Your task to perform on an android device: turn off javascript in the chrome app Image 0: 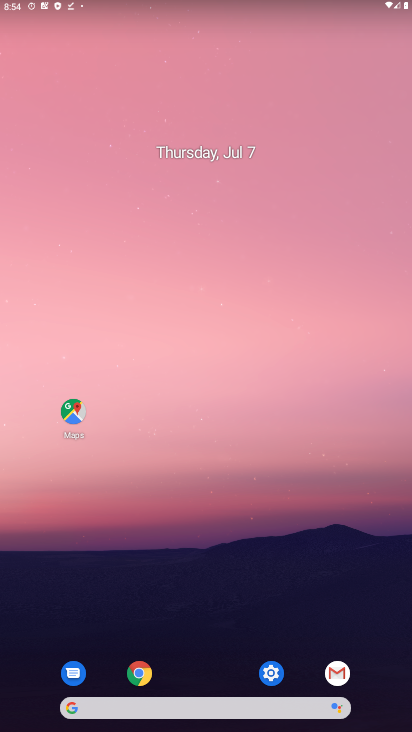
Step 0: click (147, 663)
Your task to perform on an android device: turn off javascript in the chrome app Image 1: 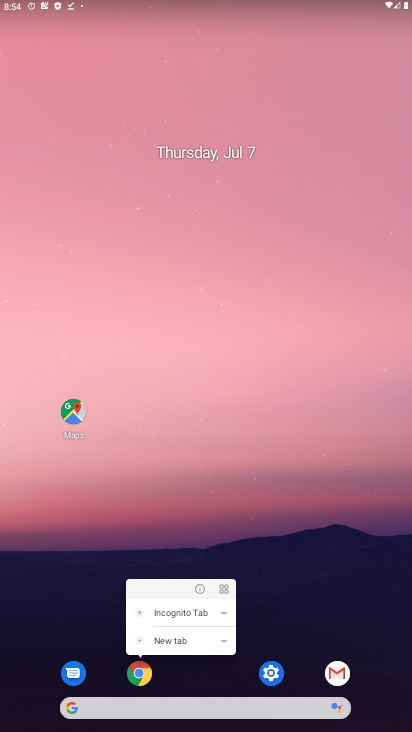
Step 1: click (141, 678)
Your task to perform on an android device: turn off javascript in the chrome app Image 2: 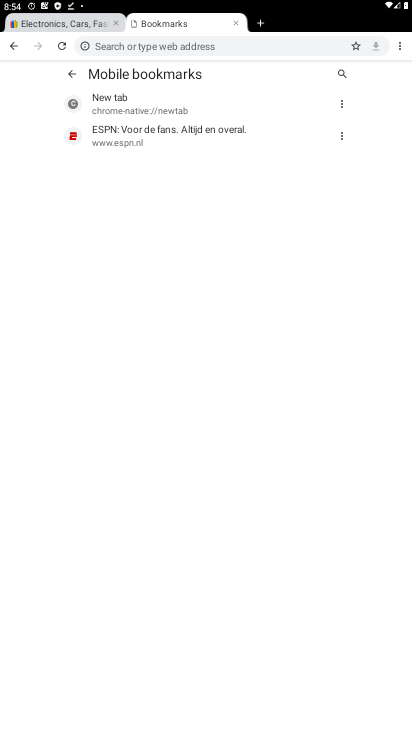
Step 2: click (405, 46)
Your task to perform on an android device: turn off javascript in the chrome app Image 3: 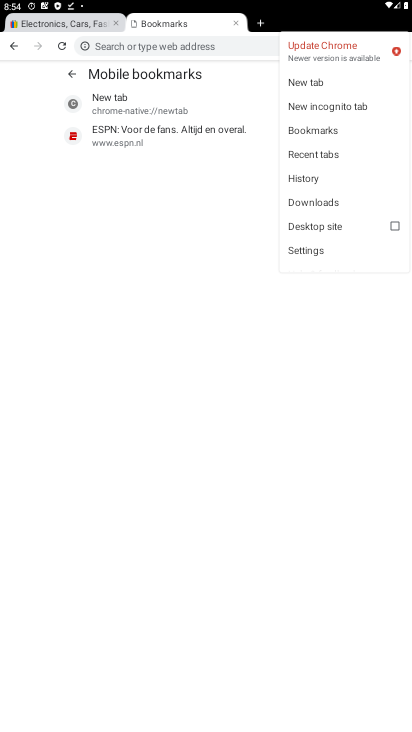
Step 3: click (304, 253)
Your task to perform on an android device: turn off javascript in the chrome app Image 4: 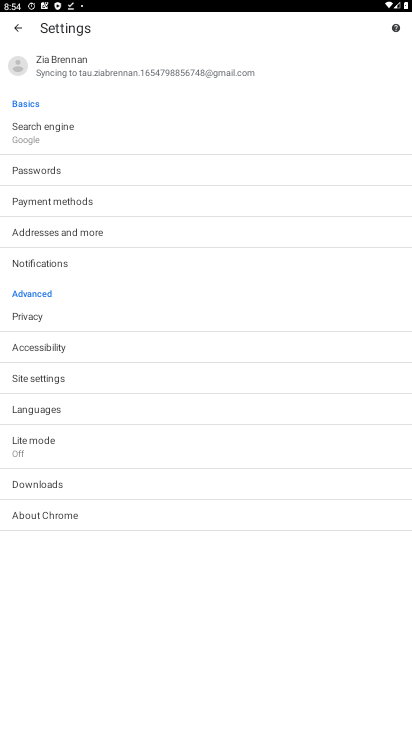
Step 4: click (58, 382)
Your task to perform on an android device: turn off javascript in the chrome app Image 5: 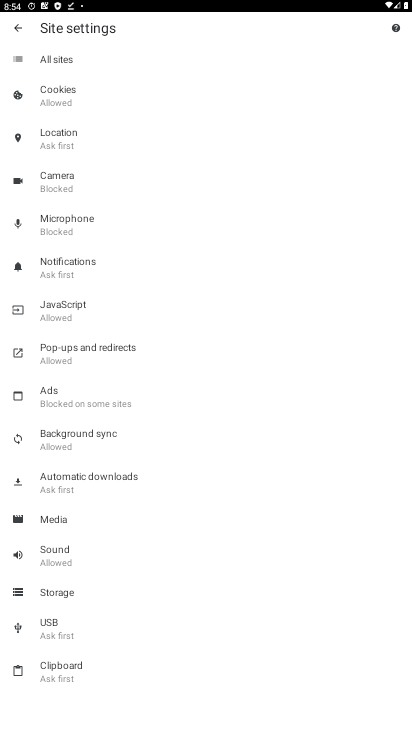
Step 5: click (86, 313)
Your task to perform on an android device: turn off javascript in the chrome app Image 6: 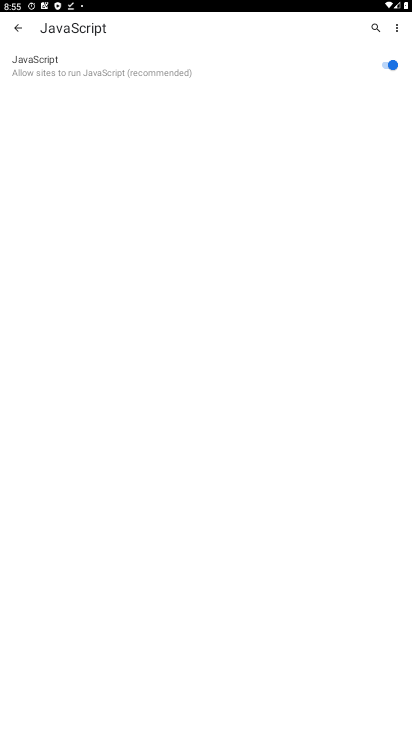
Step 6: click (386, 76)
Your task to perform on an android device: turn off javascript in the chrome app Image 7: 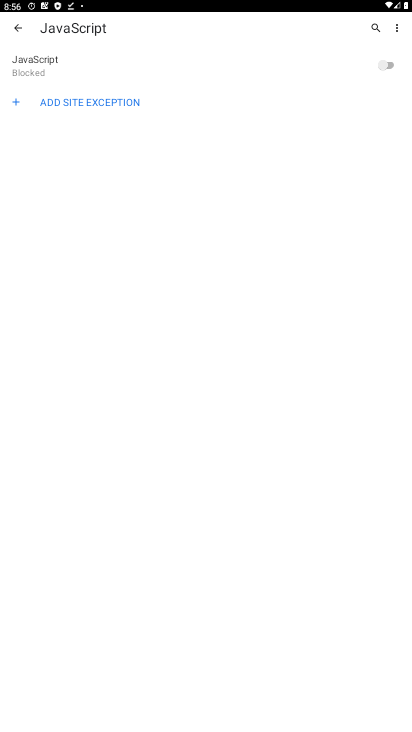
Step 7: task complete